Your task to perform on an android device: Is it going to rain tomorrow? Image 0: 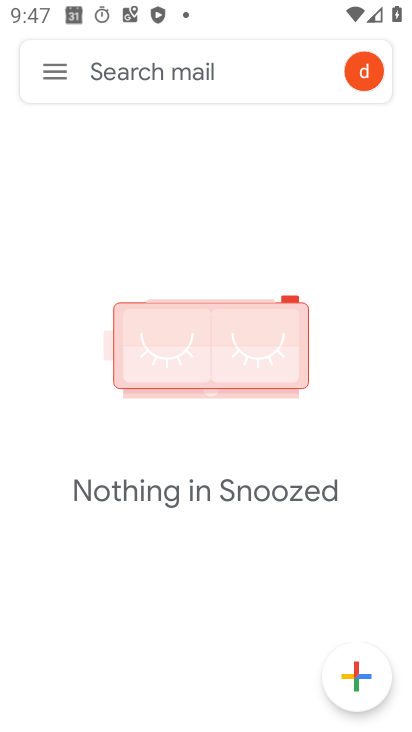
Step 0: press home button
Your task to perform on an android device: Is it going to rain tomorrow? Image 1: 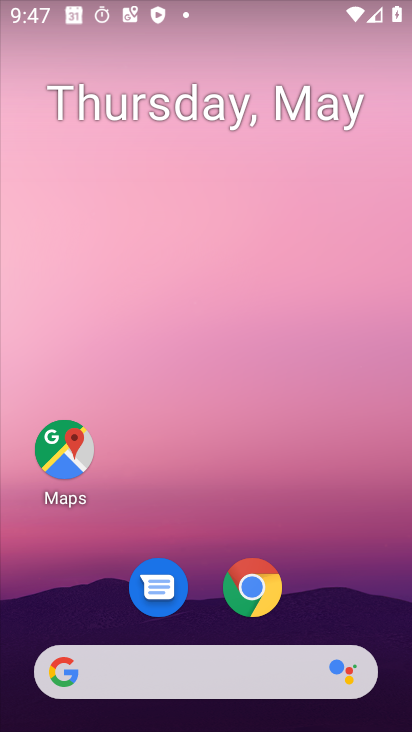
Step 1: click (114, 679)
Your task to perform on an android device: Is it going to rain tomorrow? Image 2: 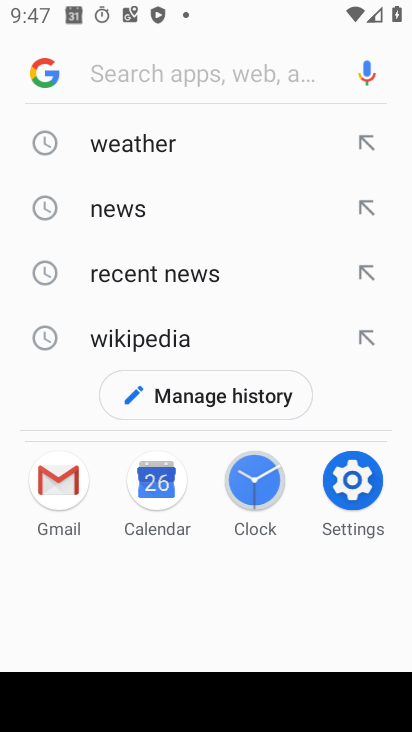
Step 2: click (133, 145)
Your task to perform on an android device: Is it going to rain tomorrow? Image 3: 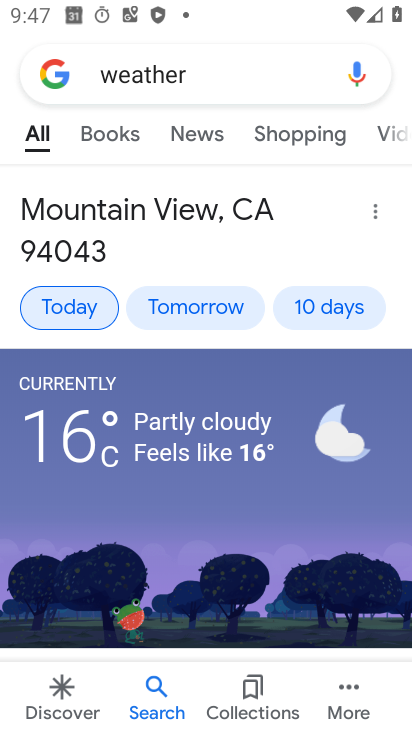
Step 3: click (185, 306)
Your task to perform on an android device: Is it going to rain tomorrow? Image 4: 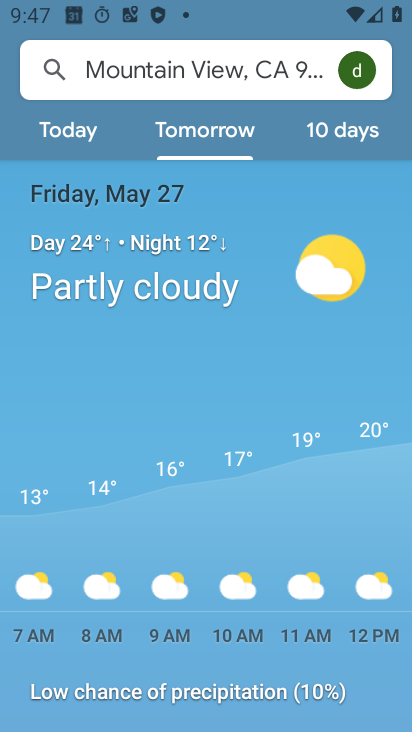
Step 4: task complete